Your task to perform on an android device: Search for vegetarian restaurants on Maps Image 0: 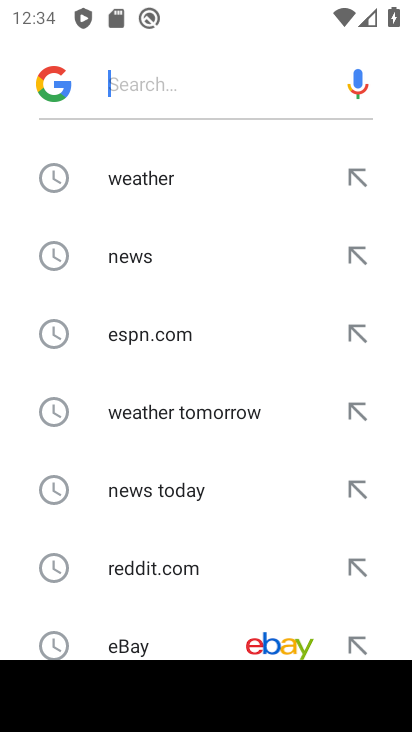
Step 0: press home button
Your task to perform on an android device: Search for vegetarian restaurants on Maps Image 1: 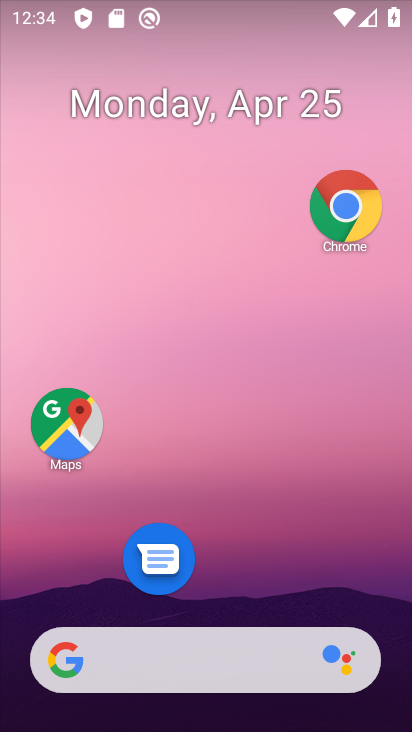
Step 1: click (50, 410)
Your task to perform on an android device: Search for vegetarian restaurants on Maps Image 2: 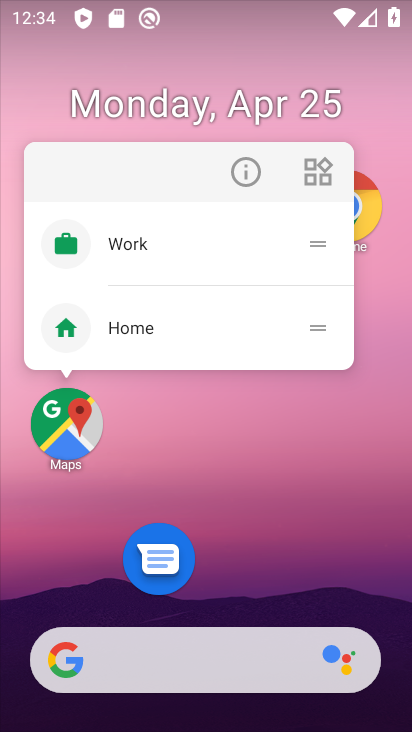
Step 2: click (61, 414)
Your task to perform on an android device: Search for vegetarian restaurants on Maps Image 3: 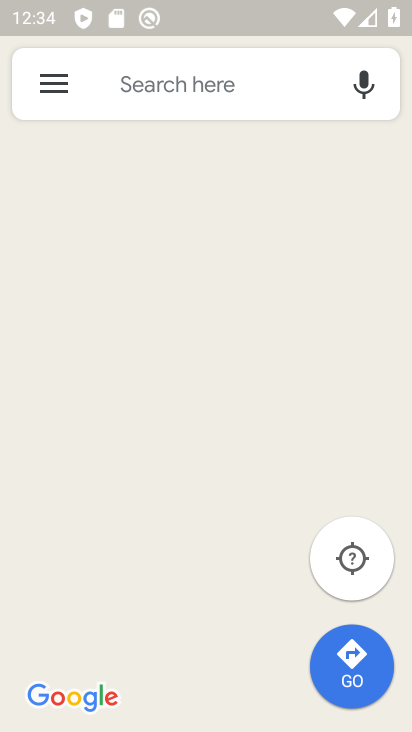
Step 3: click (161, 98)
Your task to perform on an android device: Search for vegetarian restaurants on Maps Image 4: 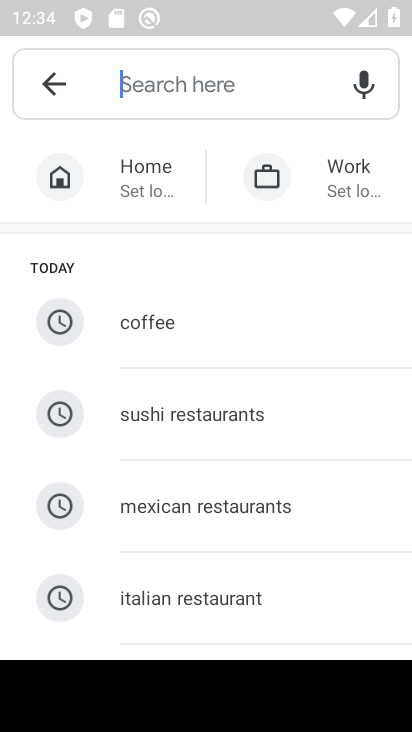
Step 4: type "vegetarian"
Your task to perform on an android device: Search for vegetarian restaurants on Maps Image 5: 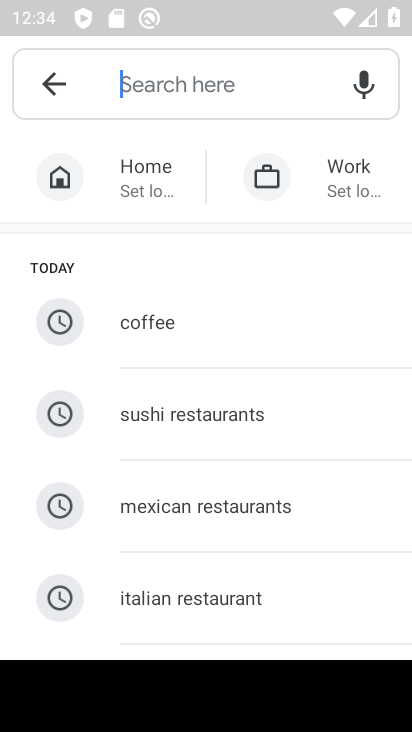
Step 5: drag from (290, 185) to (296, 133)
Your task to perform on an android device: Search for vegetarian restaurants on Maps Image 6: 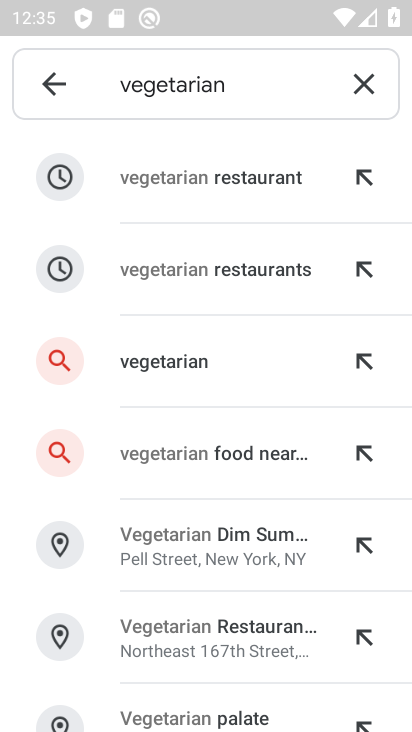
Step 6: click (205, 172)
Your task to perform on an android device: Search for vegetarian restaurants on Maps Image 7: 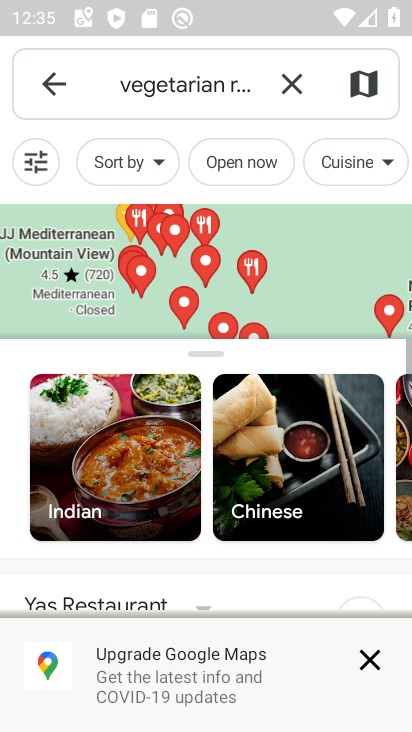
Step 7: task complete